Your task to perform on an android device: Open Youtube and go to "Your channel" Image 0: 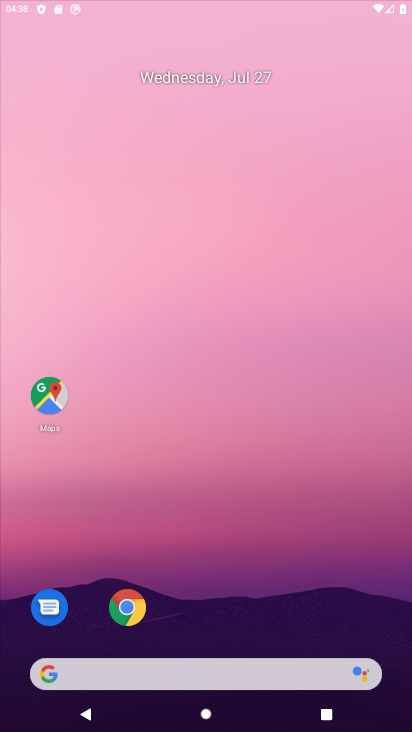
Step 0: press home button
Your task to perform on an android device: Open Youtube and go to "Your channel" Image 1: 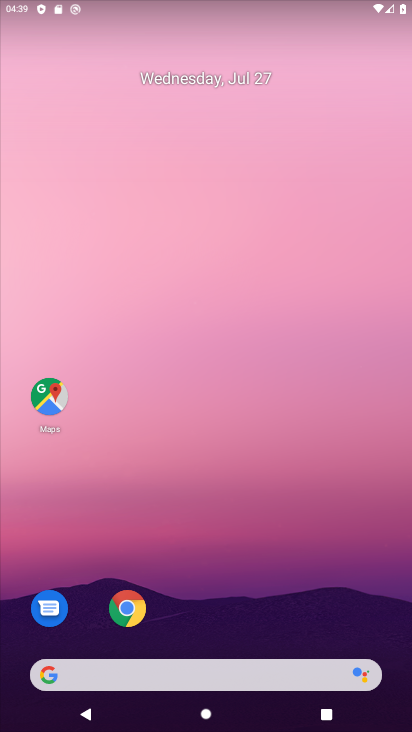
Step 1: drag from (292, 610) to (292, 139)
Your task to perform on an android device: Open Youtube and go to "Your channel" Image 2: 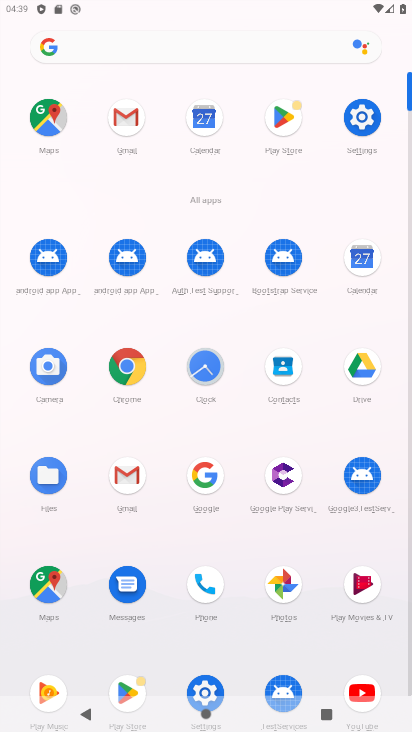
Step 2: click (360, 683)
Your task to perform on an android device: Open Youtube and go to "Your channel" Image 3: 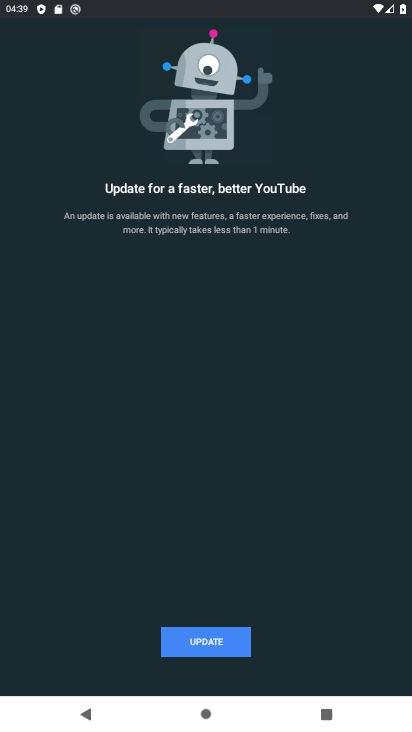
Step 3: click (188, 655)
Your task to perform on an android device: Open Youtube and go to "Your channel" Image 4: 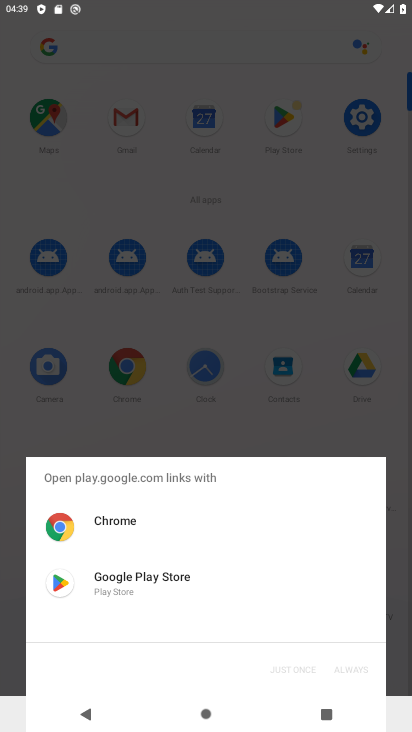
Step 4: click (113, 571)
Your task to perform on an android device: Open Youtube and go to "Your channel" Image 5: 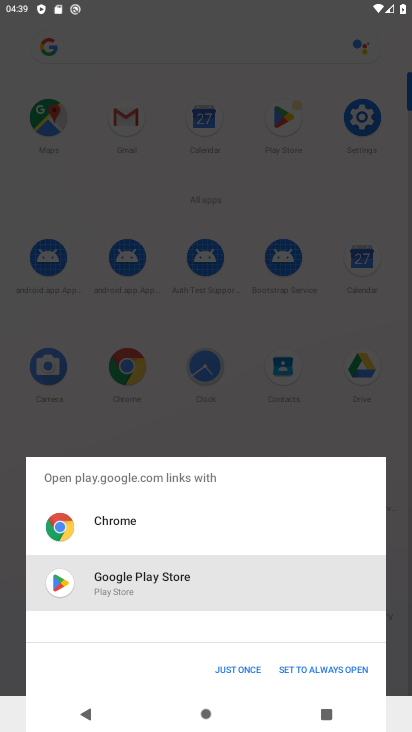
Step 5: click (241, 668)
Your task to perform on an android device: Open Youtube and go to "Your channel" Image 6: 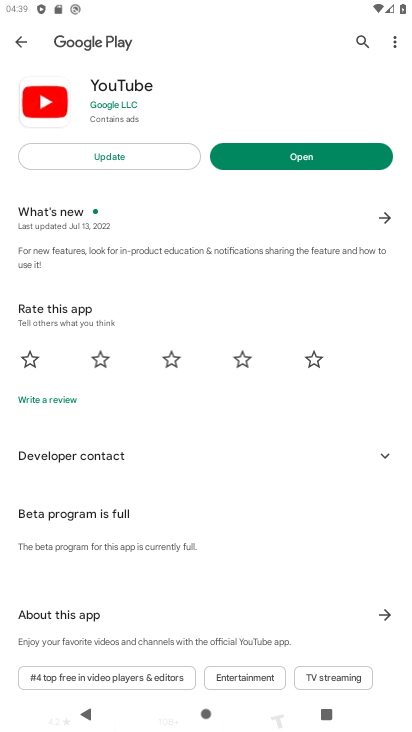
Step 6: click (131, 157)
Your task to perform on an android device: Open Youtube and go to "Your channel" Image 7: 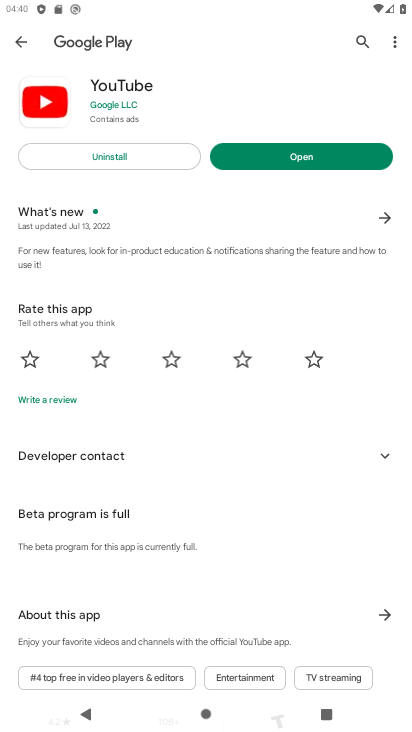
Step 7: click (258, 143)
Your task to perform on an android device: Open Youtube and go to "Your channel" Image 8: 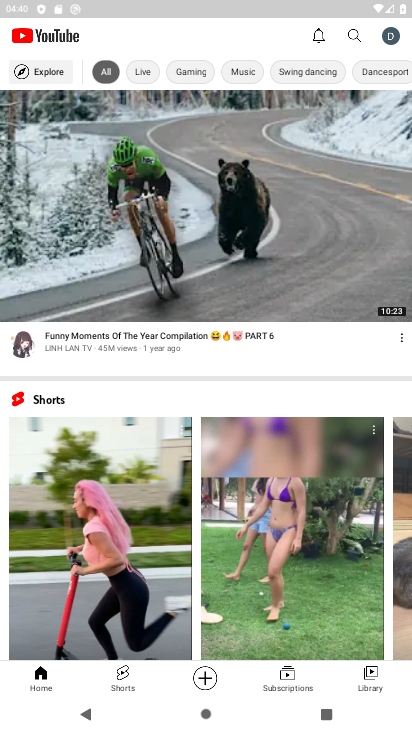
Step 8: click (389, 40)
Your task to perform on an android device: Open Youtube and go to "Your channel" Image 9: 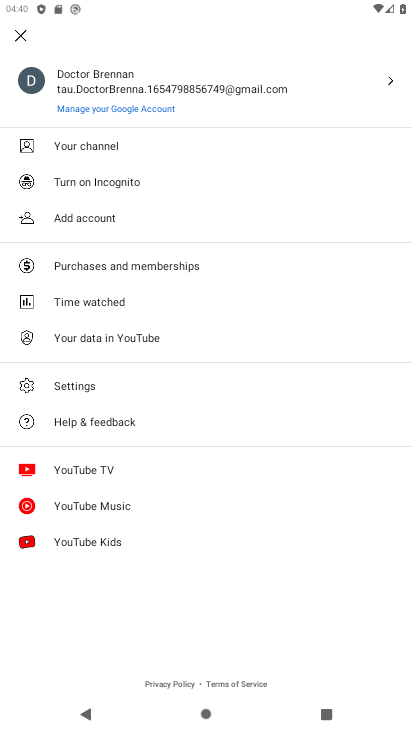
Step 9: click (99, 143)
Your task to perform on an android device: Open Youtube and go to "Your channel" Image 10: 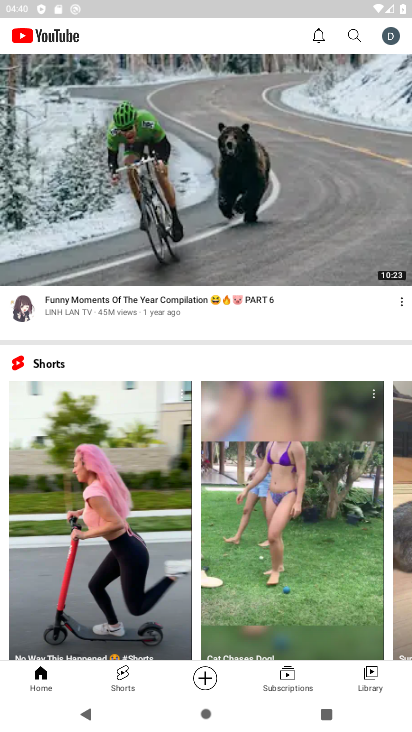
Step 10: task complete